Your task to perform on an android device: install app "Expedia: Hotels, Flights & Car" Image 0: 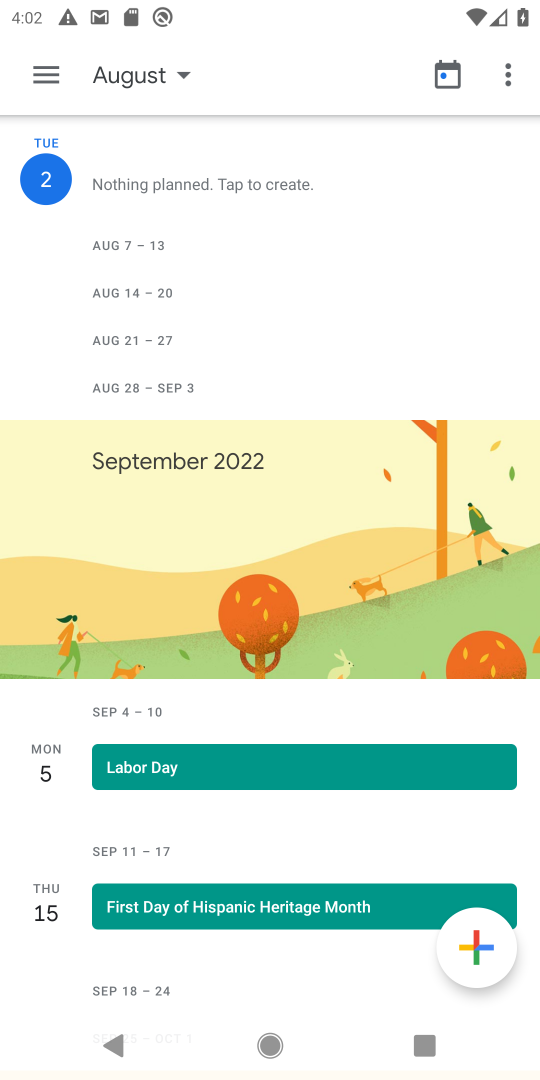
Step 0: press home button
Your task to perform on an android device: install app "Expedia: Hotels, Flights & Car" Image 1: 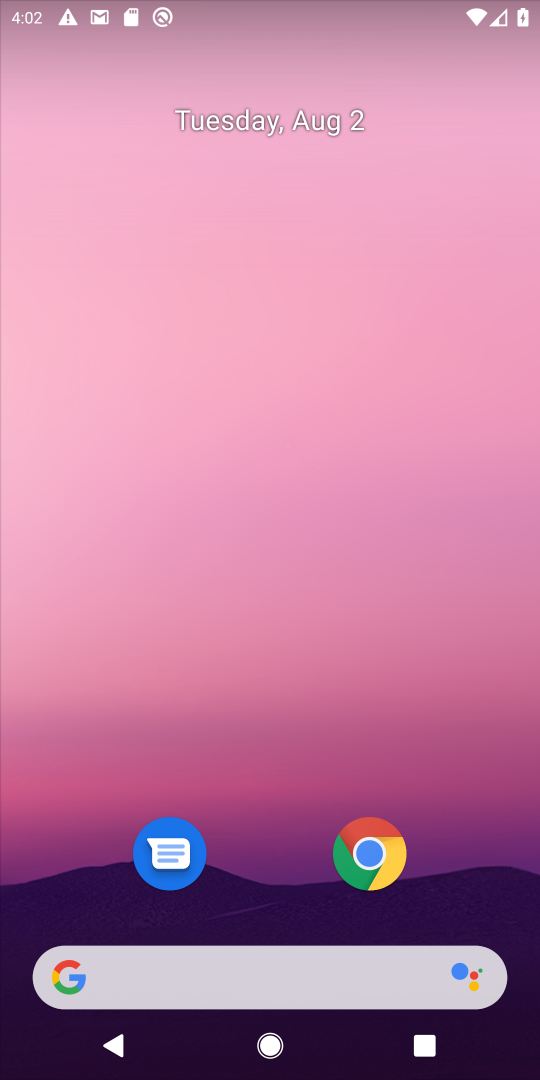
Step 1: click (315, 1066)
Your task to perform on an android device: install app "Expedia: Hotels, Flights & Car" Image 2: 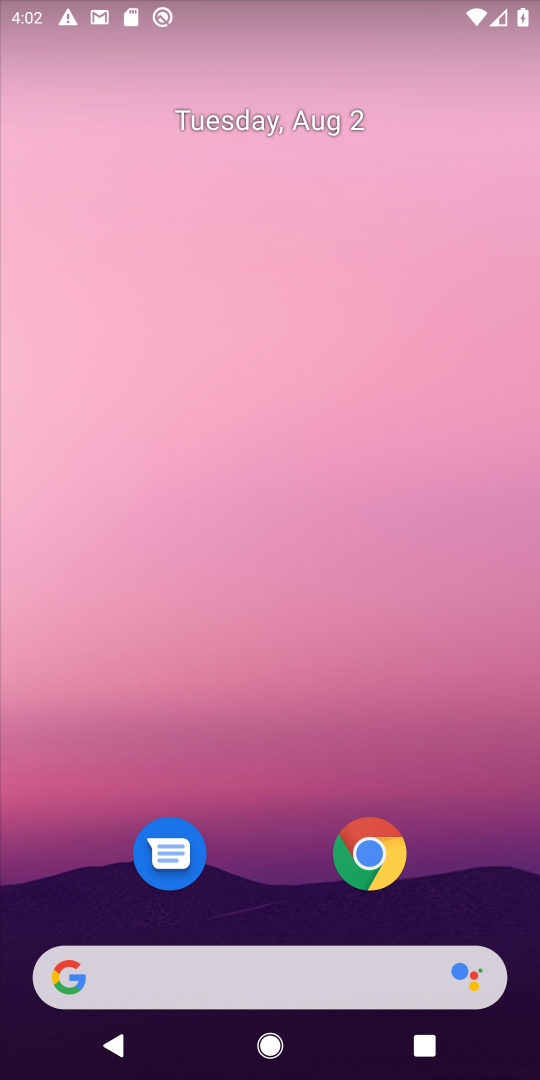
Step 2: click (312, 154)
Your task to perform on an android device: install app "Expedia: Hotels, Flights & Car" Image 3: 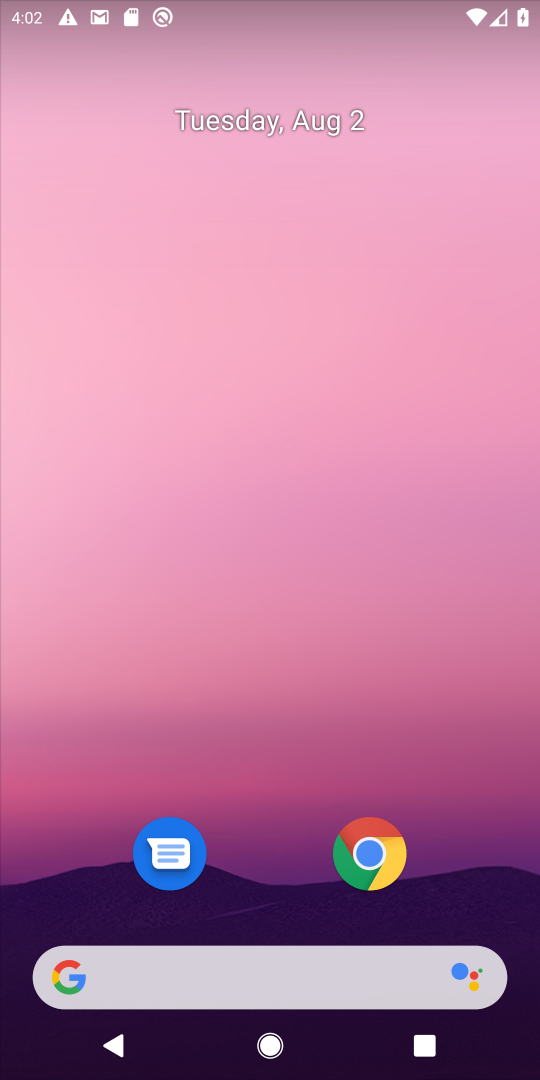
Step 3: drag from (284, 394) to (254, 179)
Your task to perform on an android device: install app "Expedia: Hotels, Flights & Car" Image 4: 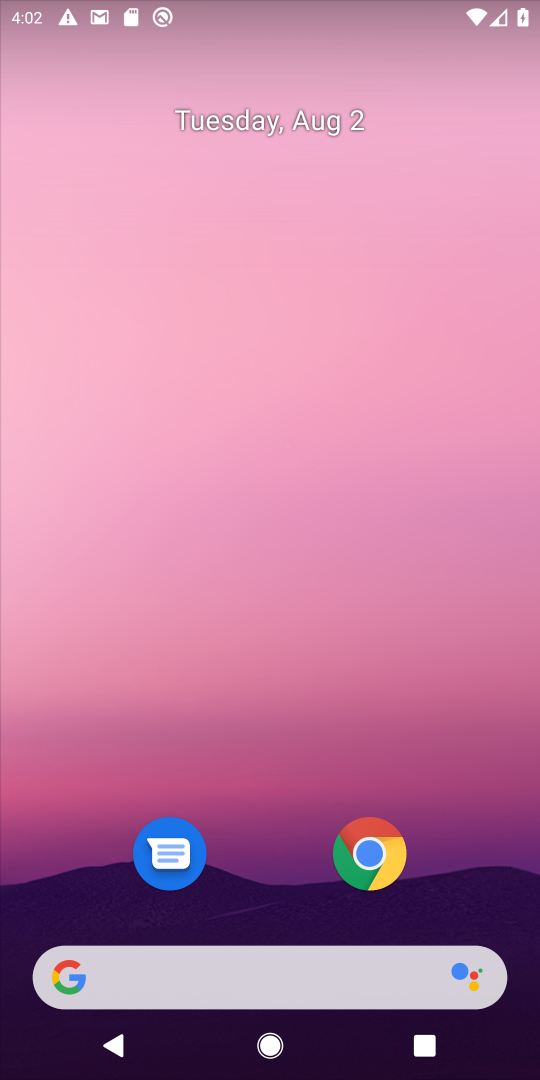
Step 4: drag from (303, 1071) to (306, 145)
Your task to perform on an android device: install app "Expedia: Hotels, Flights & Car" Image 5: 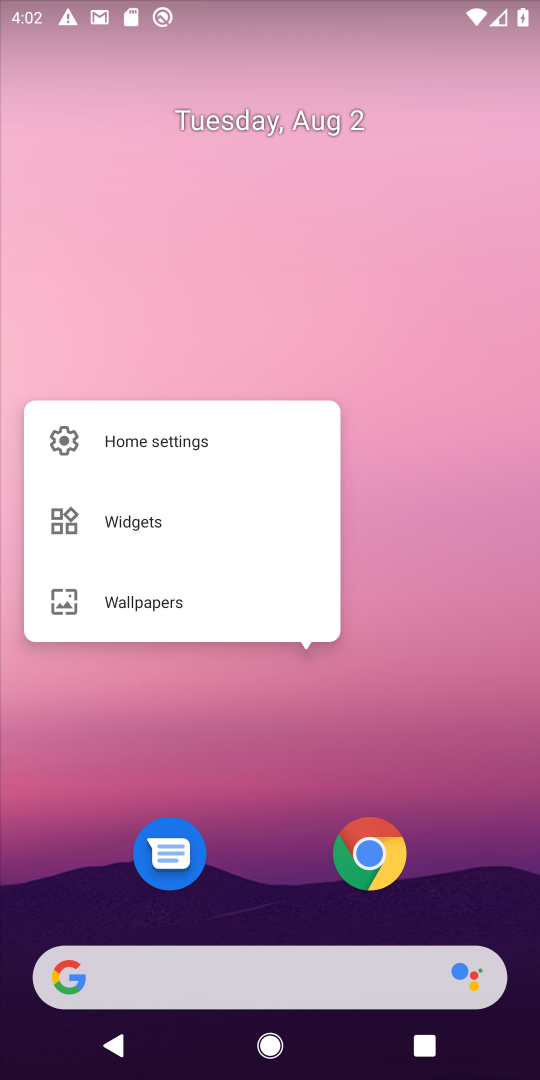
Step 5: click (257, 724)
Your task to perform on an android device: install app "Expedia: Hotels, Flights & Car" Image 6: 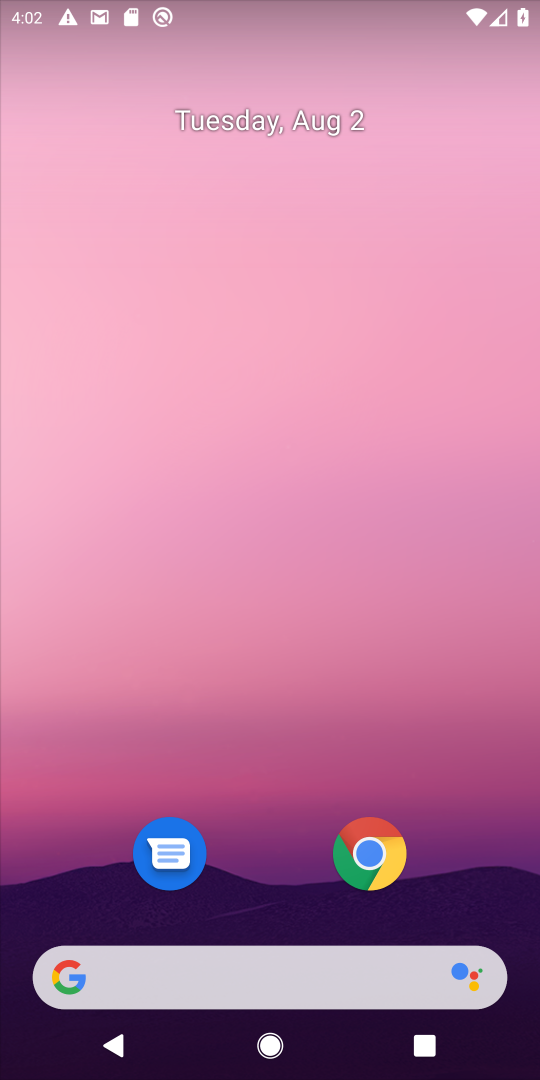
Step 6: drag from (320, 1068) to (298, 30)
Your task to perform on an android device: install app "Expedia: Hotels, Flights & Car" Image 7: 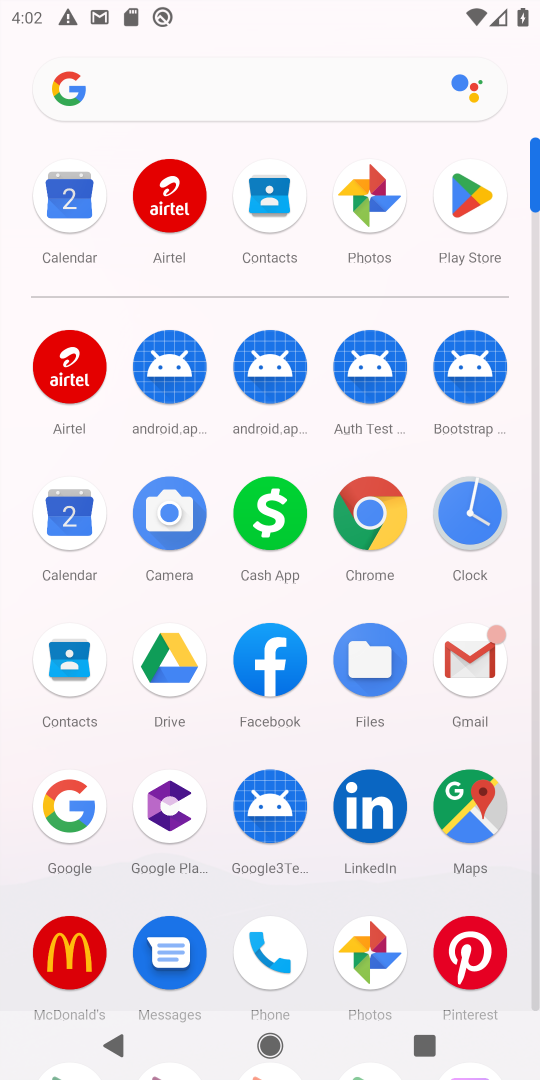
Step 7: click (469, 217)
Your task to perform on an android device: install app "Expedia: Hotels, Flights & Car" Image 8: 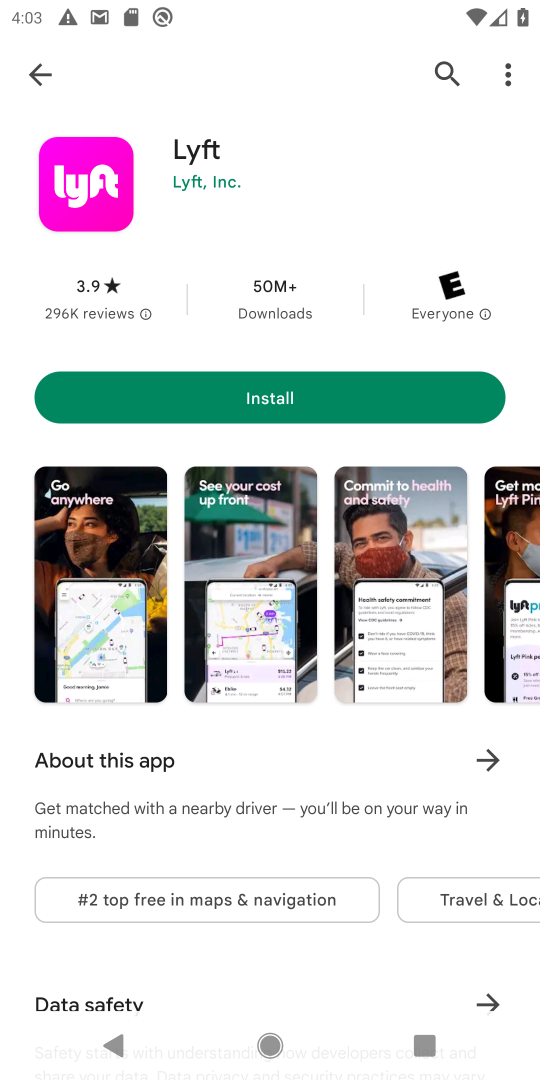
Step 8: click (446, 66)
Your task to perform on an android device: install app "Expedia: Hotels, Flights & Car" Image 9: 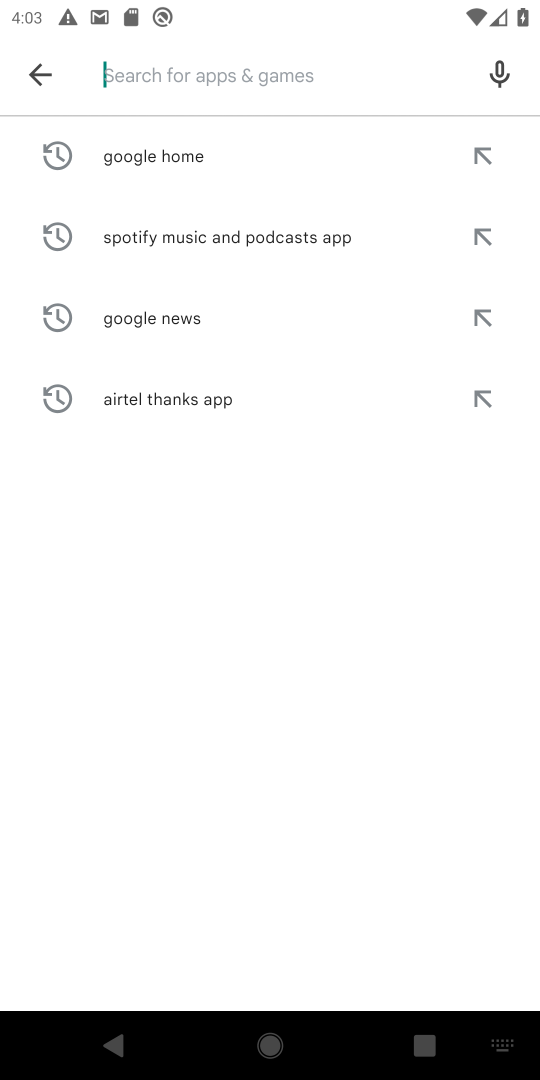
Step 9: type "Expedia: Hotels, Flights & Ca"
Your task to perform on an android device: install app "Expedia: Hotels, Flights & Car" Image 10: 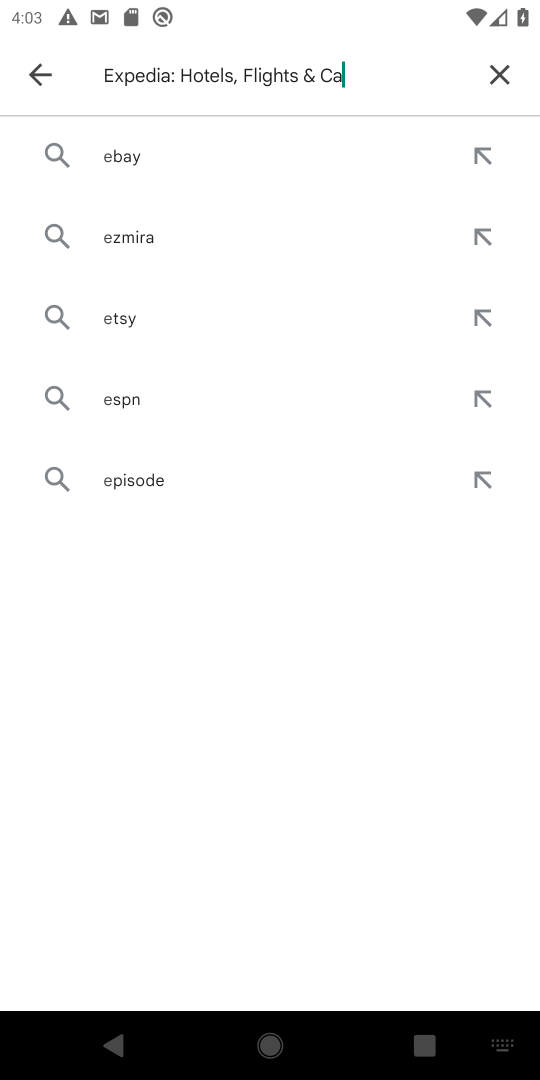
Step 10: type ""
Your task to perform on an android device: install app "Expedia: Hotels, Flights & Car" Image 11: 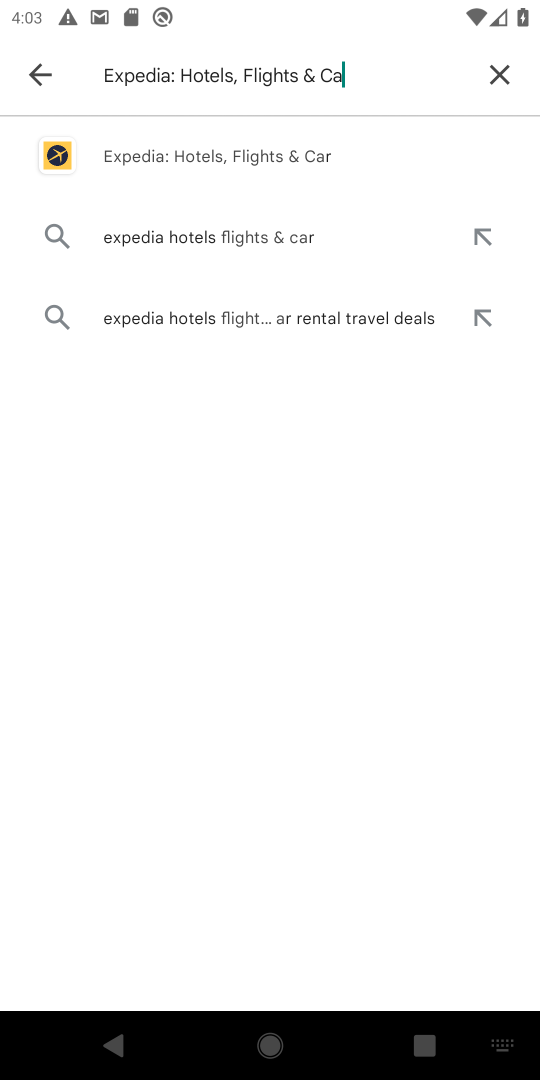
Step 11: click (243, 154)
Your task to perform on an android device: install app "Expedia: Hotels, Flights & Car" Image 12: 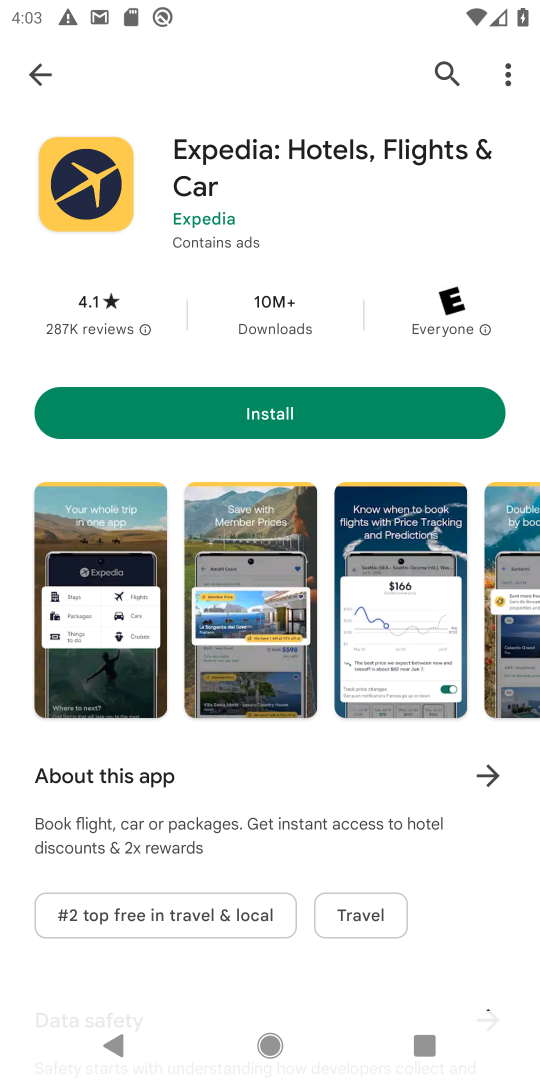
Step 12: click (248, 410)
Your task to perform on an android device: install app "Expedia: Hotels, Flights & Car" Image 13: 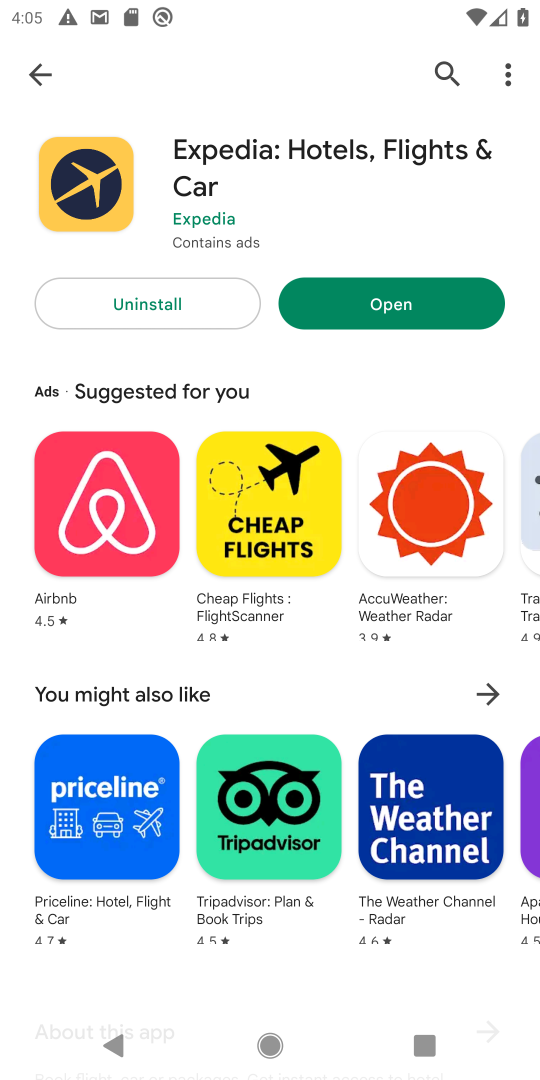
Step 13: task complete